Your task to perform on an android device: check out phone information Image 0: 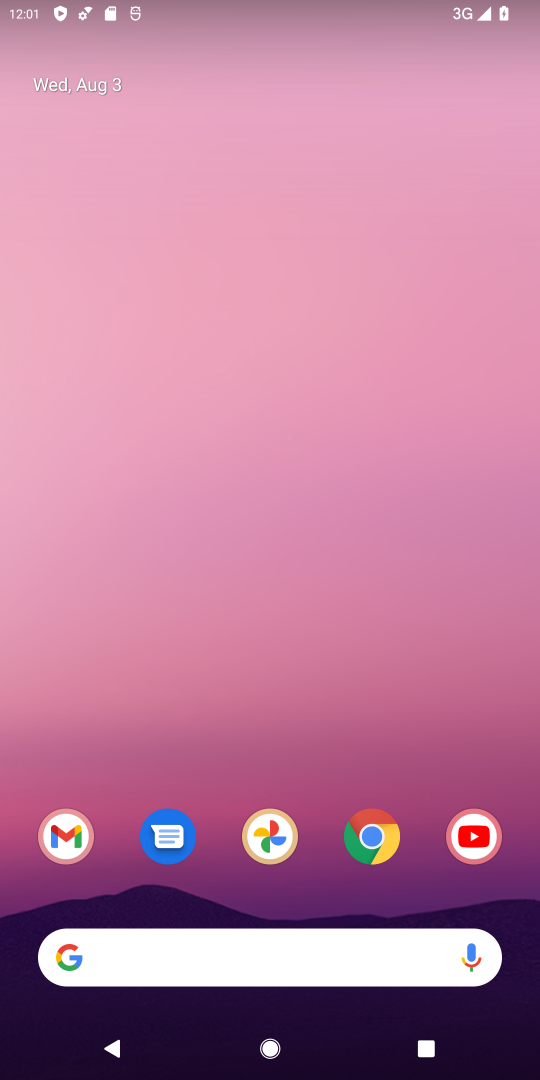
Step 0: drag from (225, 871) to (175, 383)
Your task to perform on an android device: check out phone information Image 1: 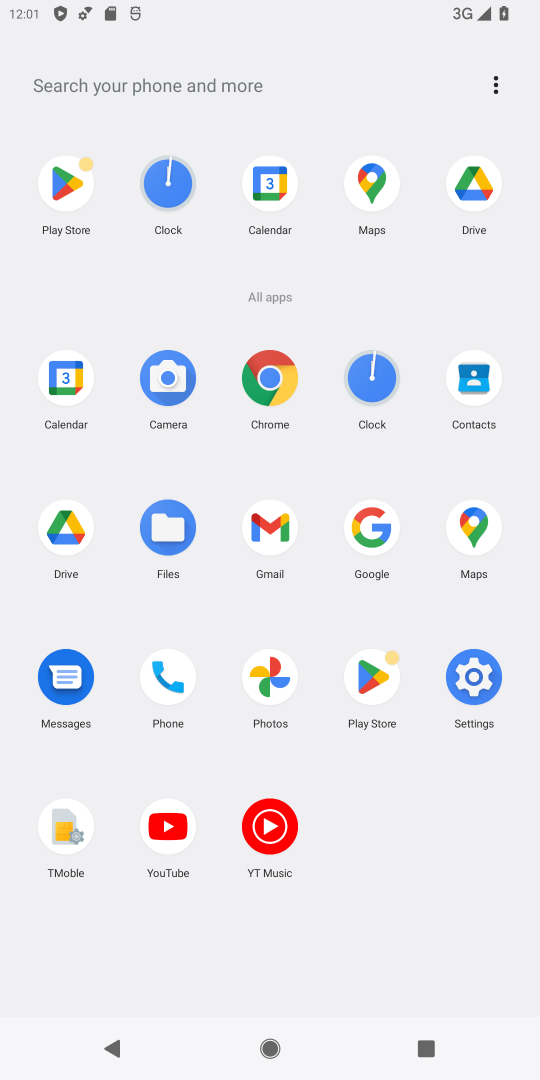
Step 1: click (478, 677)
Your task to perform on an android device: check out phone information Image 2: 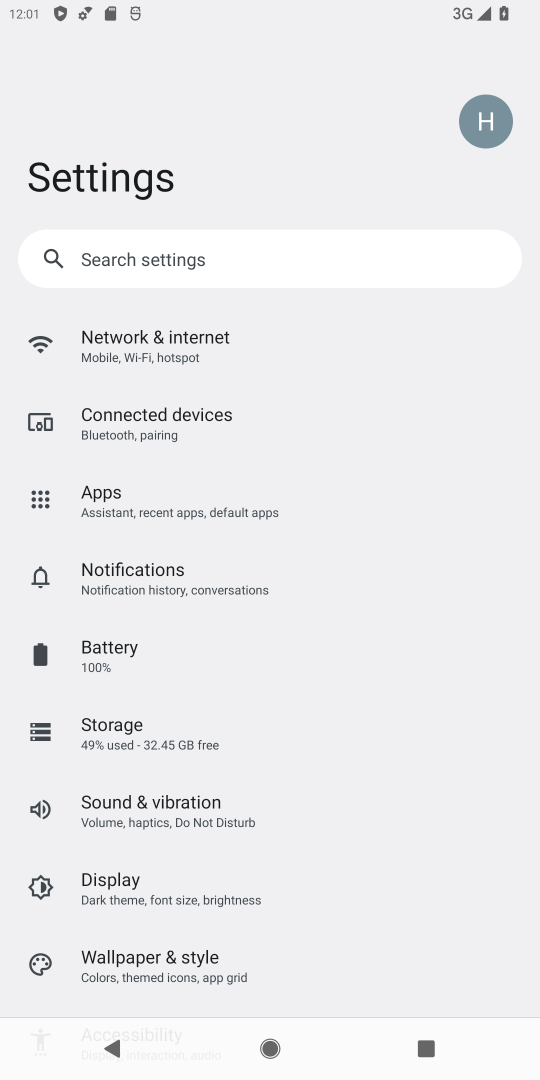
Step 2: drag from (251, 904) to (395, 1)
Your task to perform on an android device: check out phone information Image 3: 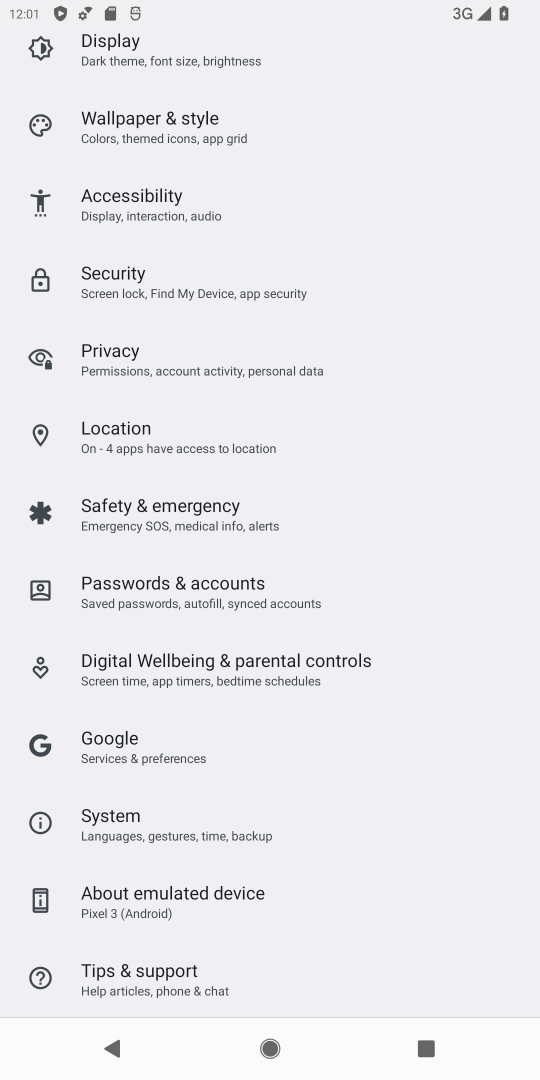
Step 3: drag from (274, 815) to (326, 219)
Your task to perform on an android device: check out phone information Image 4: 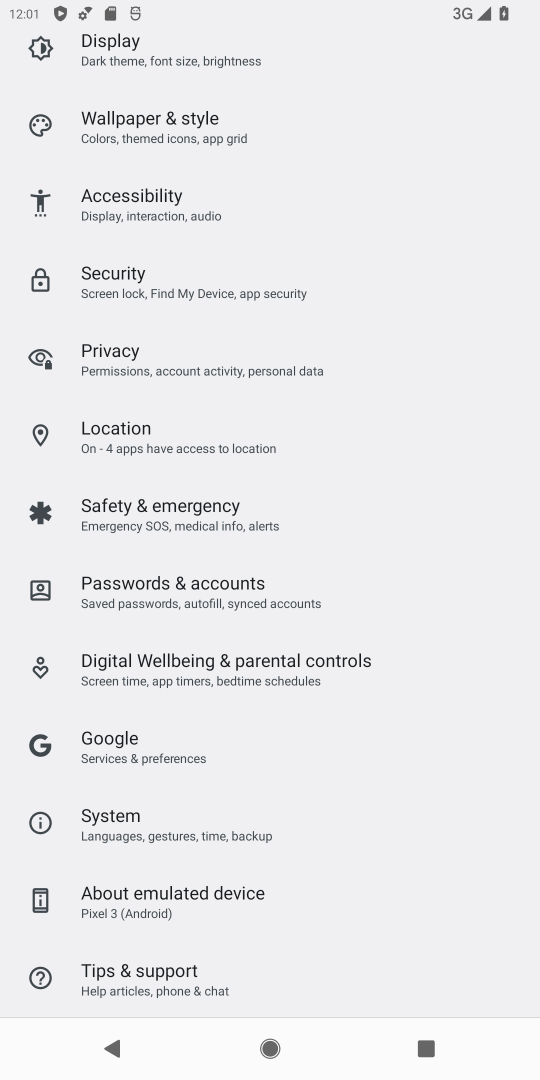
Step 4: drag from (245, 890) to (283, 424)
Your task to perform on an android device: check out phone information Image 5: 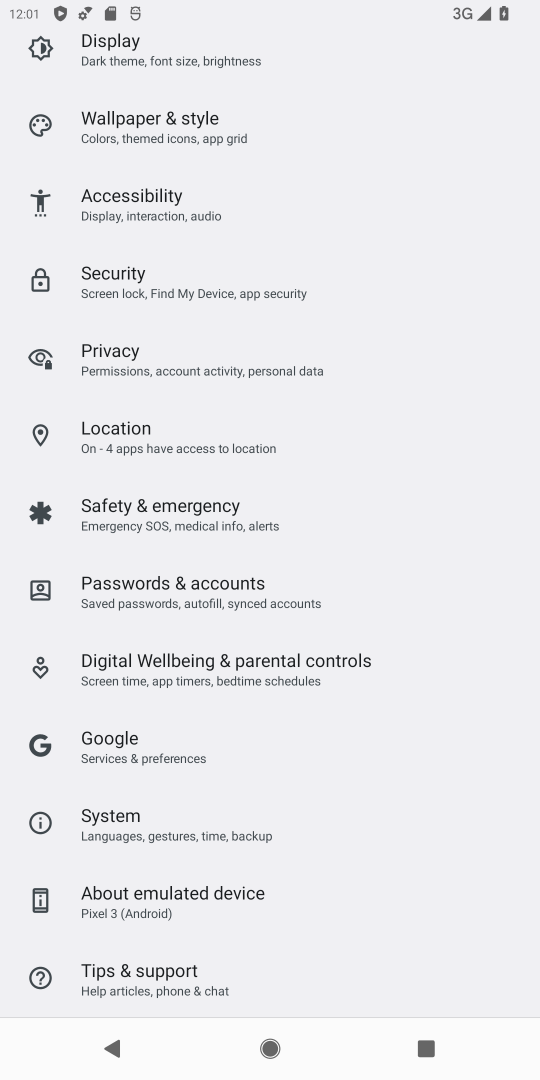
Step 5: click (162, 891)
Your task to perform on an android device: check out phone information Image 6: 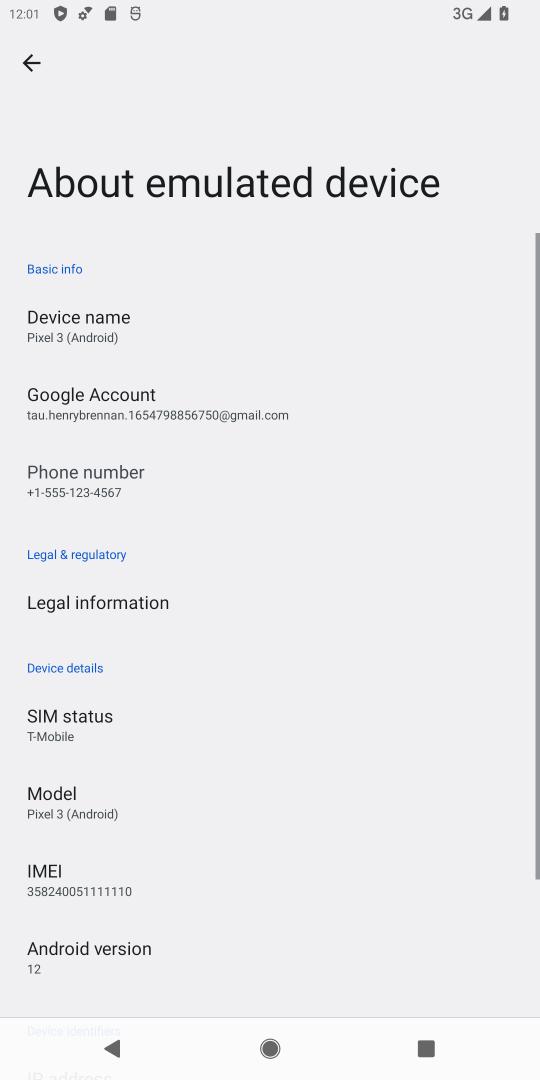
Step 6: task complete